Your task to perform on an android device: read, delete, or share a saved page in the chrome app Image 0: 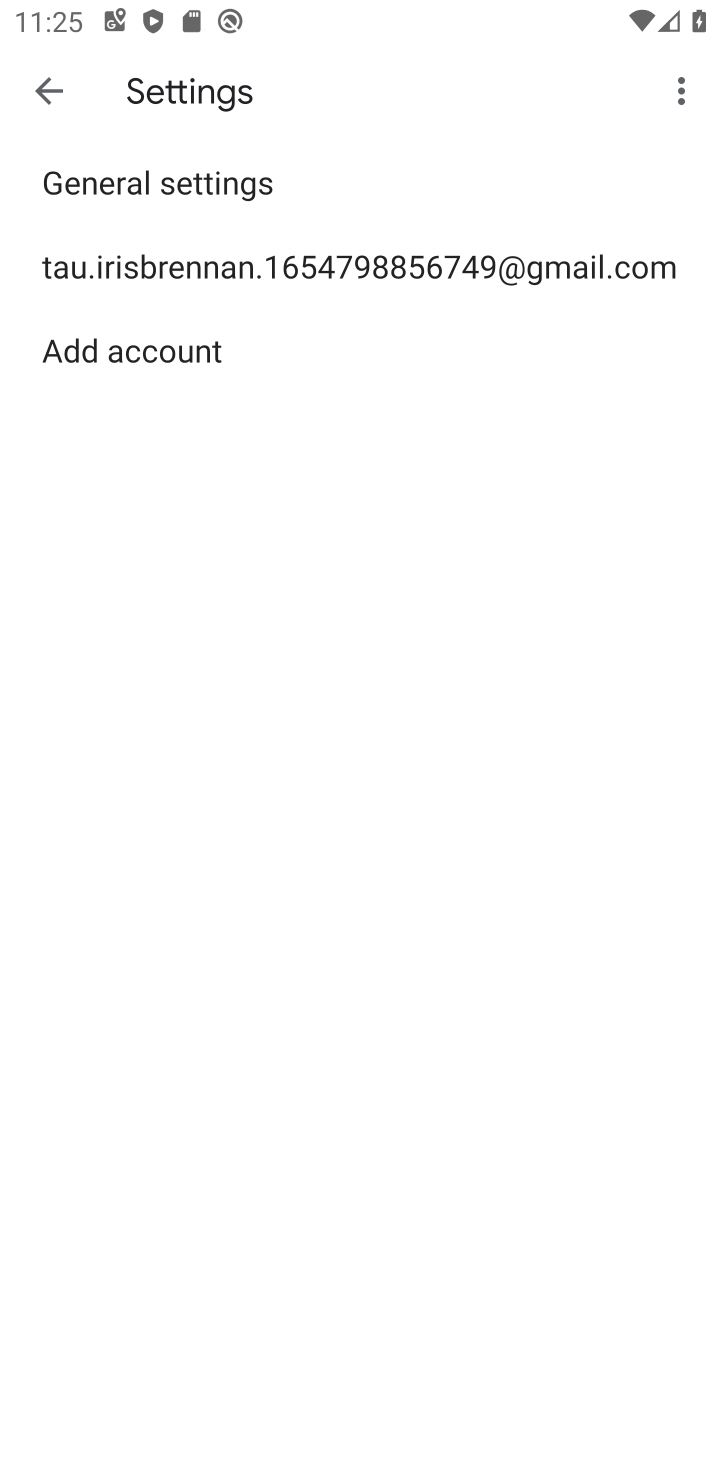
Step 0: press home button
Your task to perform on an android device: read, delete, or share a saved page in the chrome app Image 1: 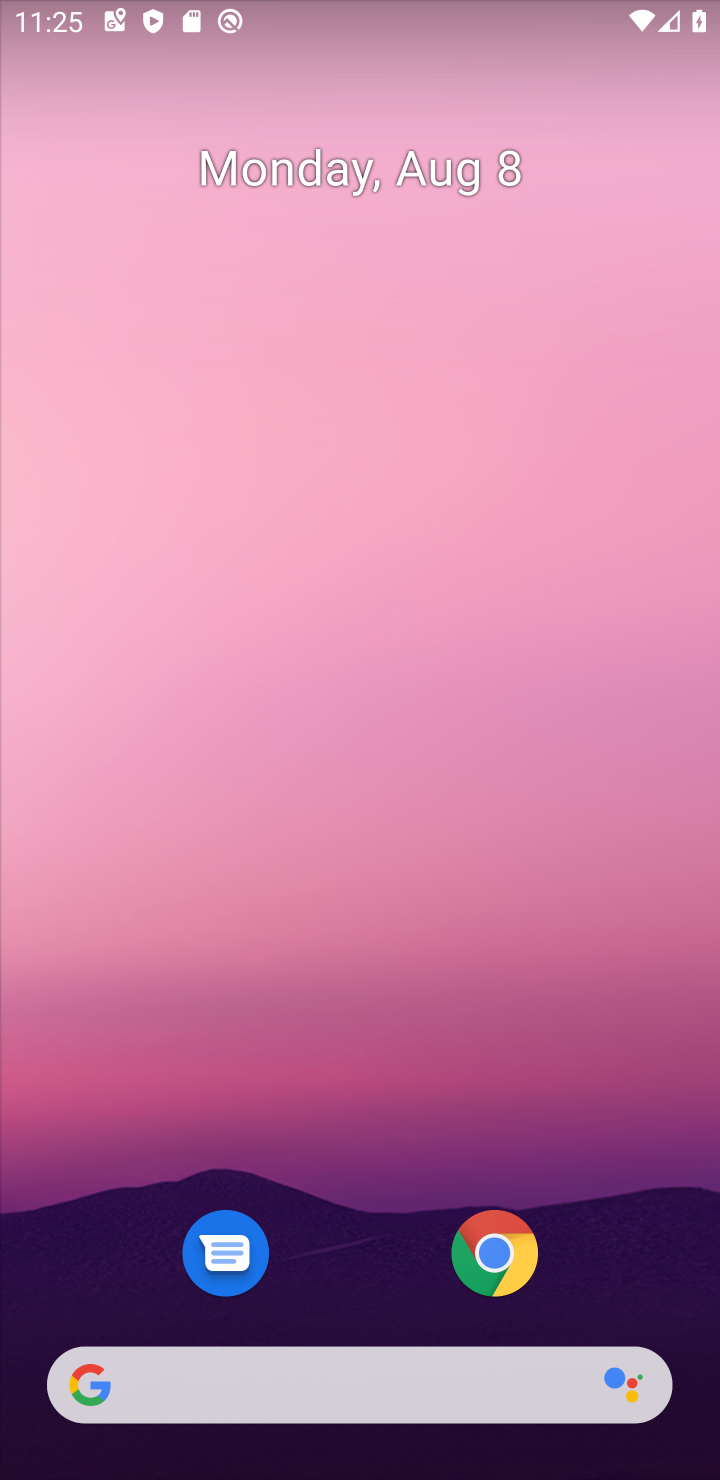
Step 1: drag from (397, 1263) to (664, 560)
Your task to perform on an android device: read, delete, or share a saved page in the chrome app Image 2: 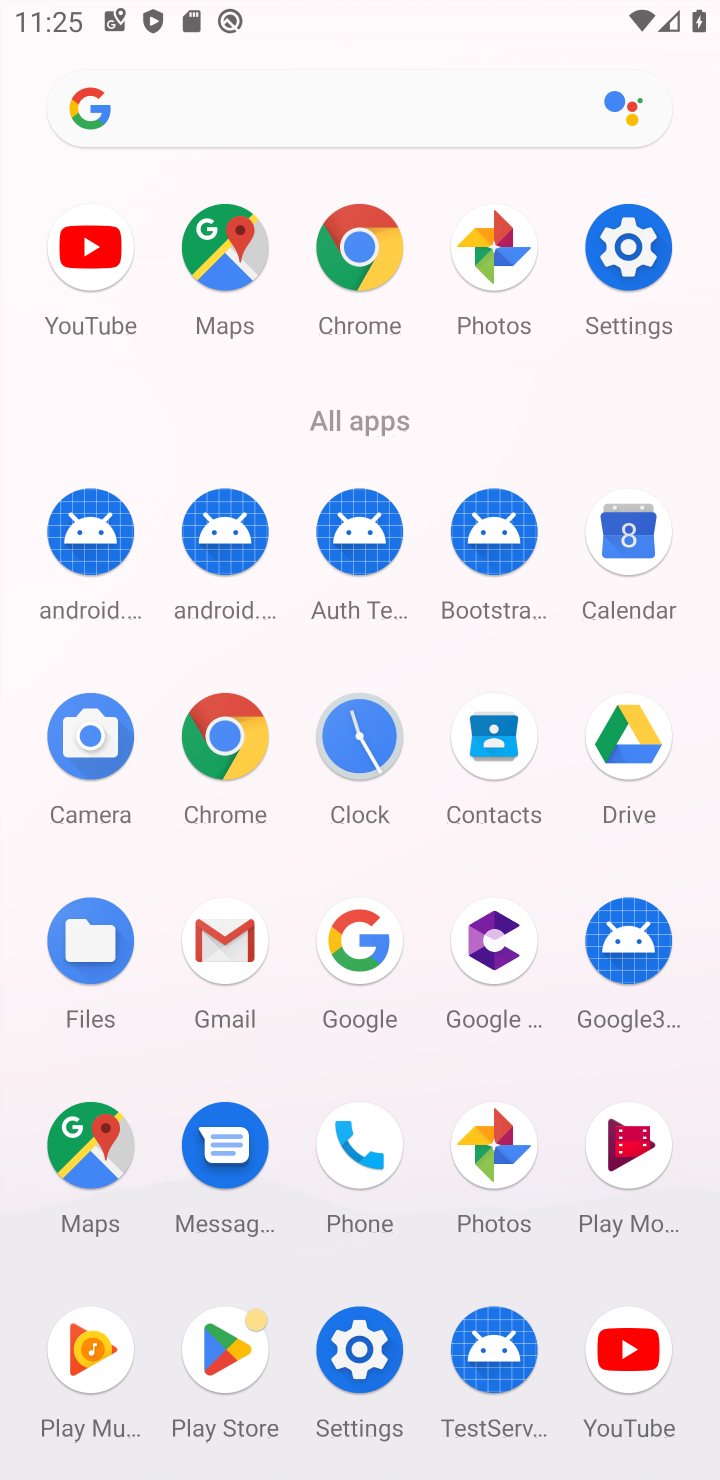
Step 2: click (250, 739)
Your task to perform on an android device: read, delete, or share a saved page in the chrome app Image 3: 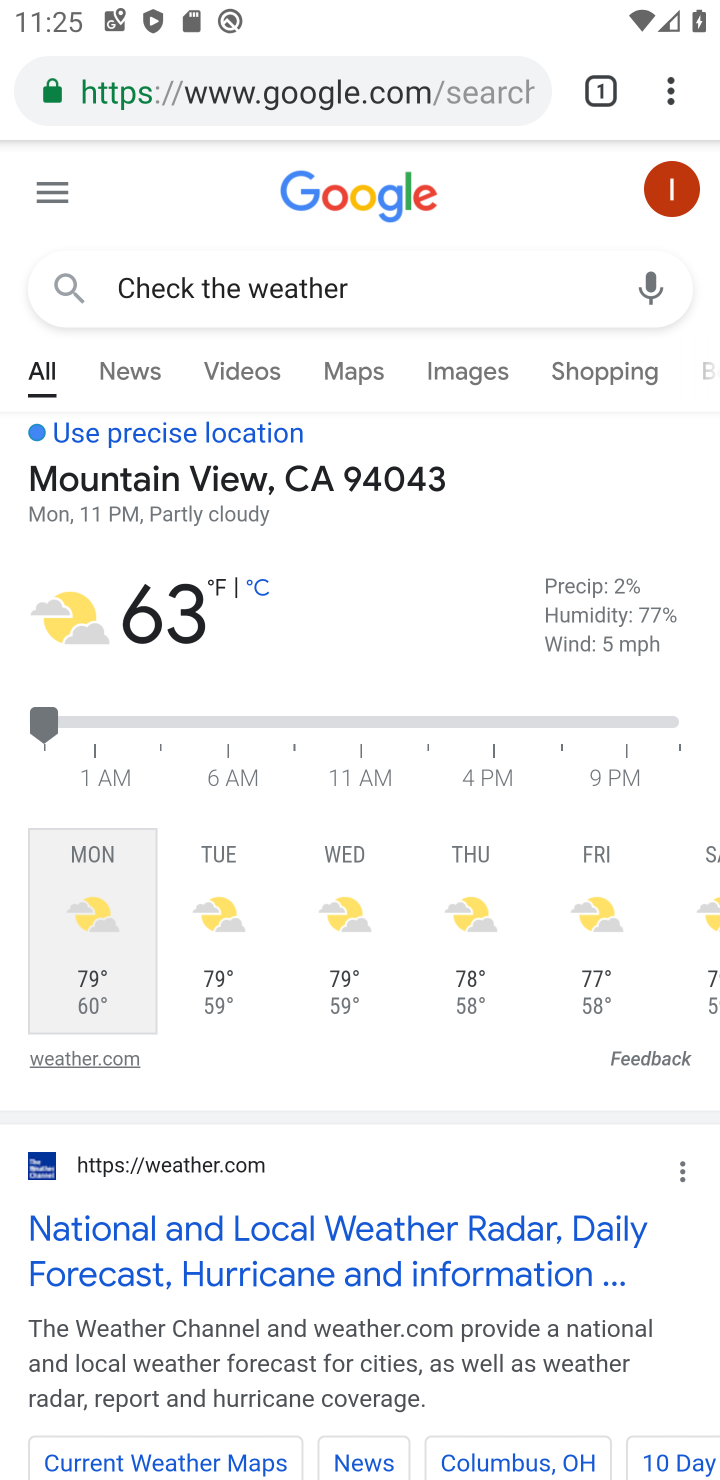
Step 3: click (675, 84)
Your task to perform on an android device: read, delete, or share a saved page in the chrome app Image 4: 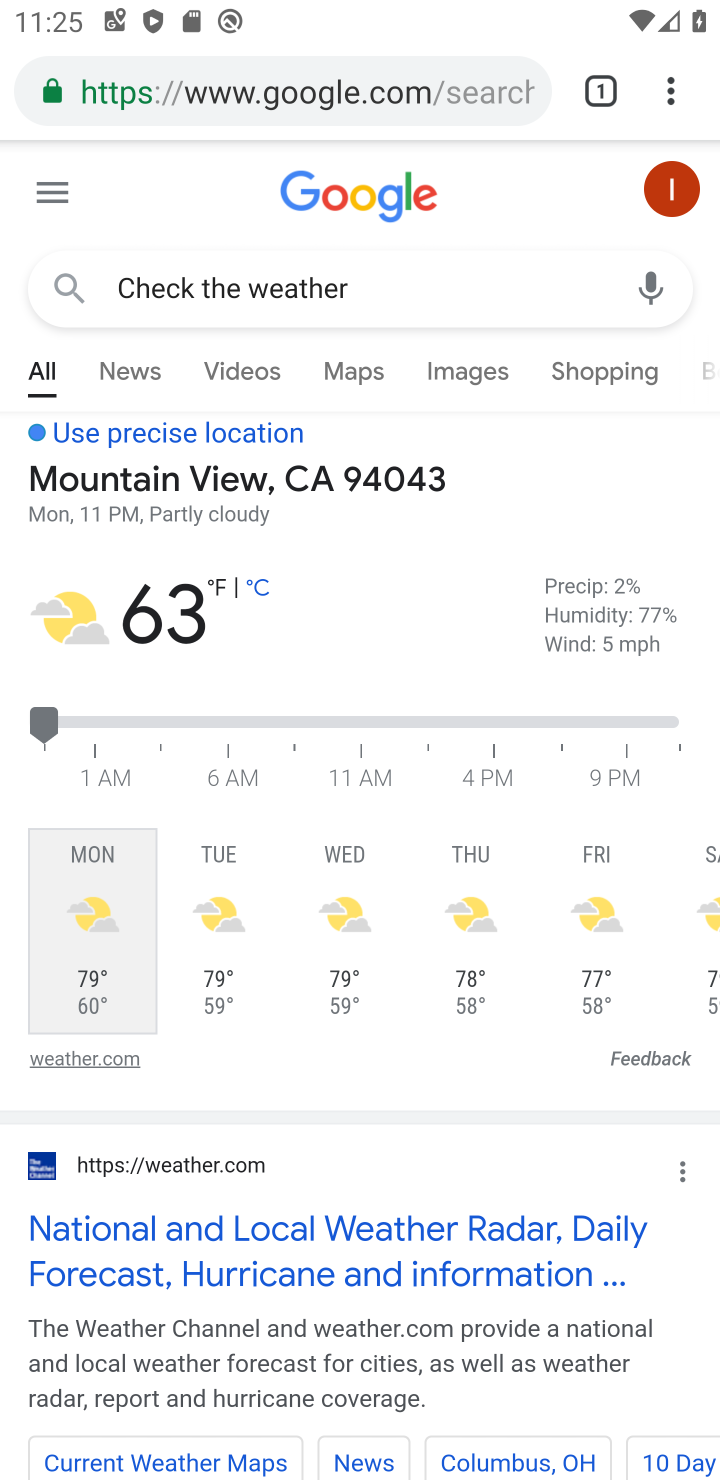
Step 4: click (675, 88)
Your task to perform on an android device: read, delete, or share a saved page in the chrome app Image 5: 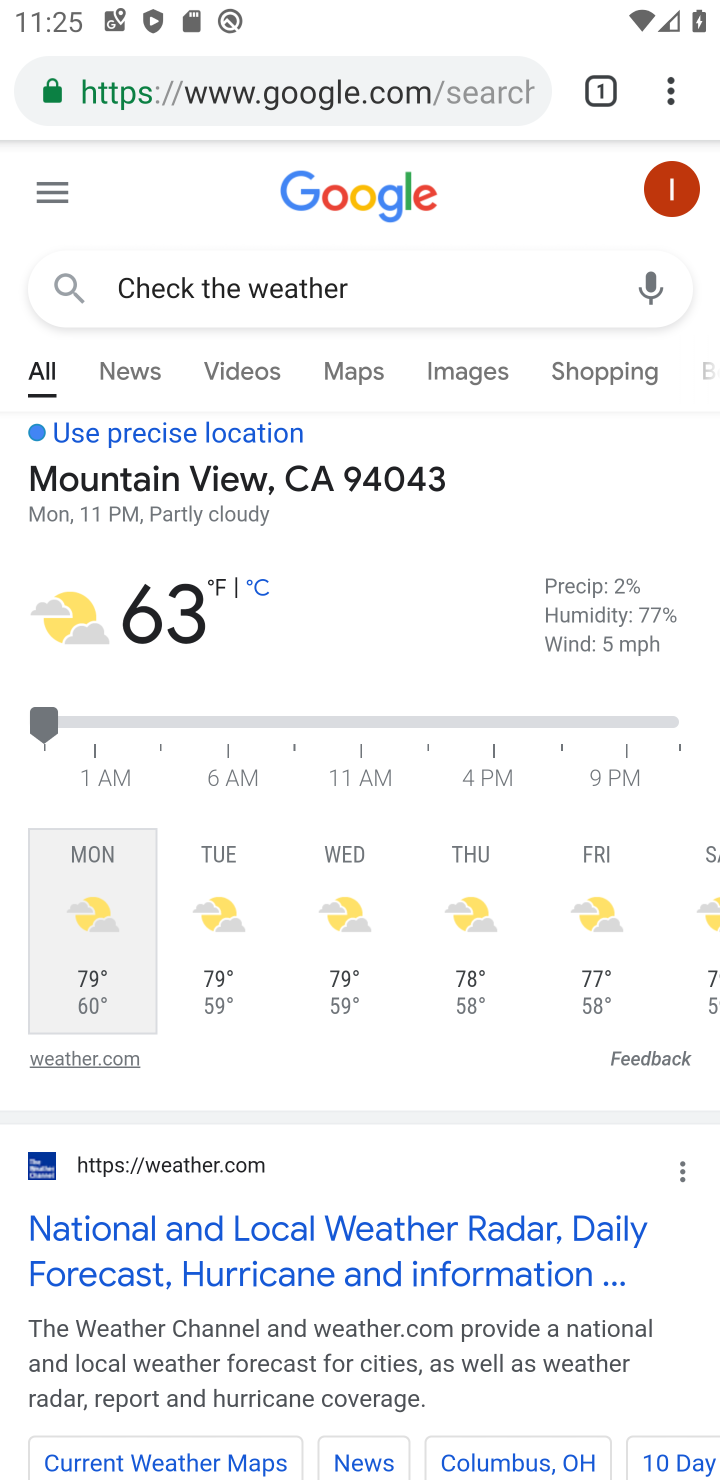
Step 5: click (675, 88)
Your task to perform on an android device: read, delete, or share a saved page in the chrome app Image 6: 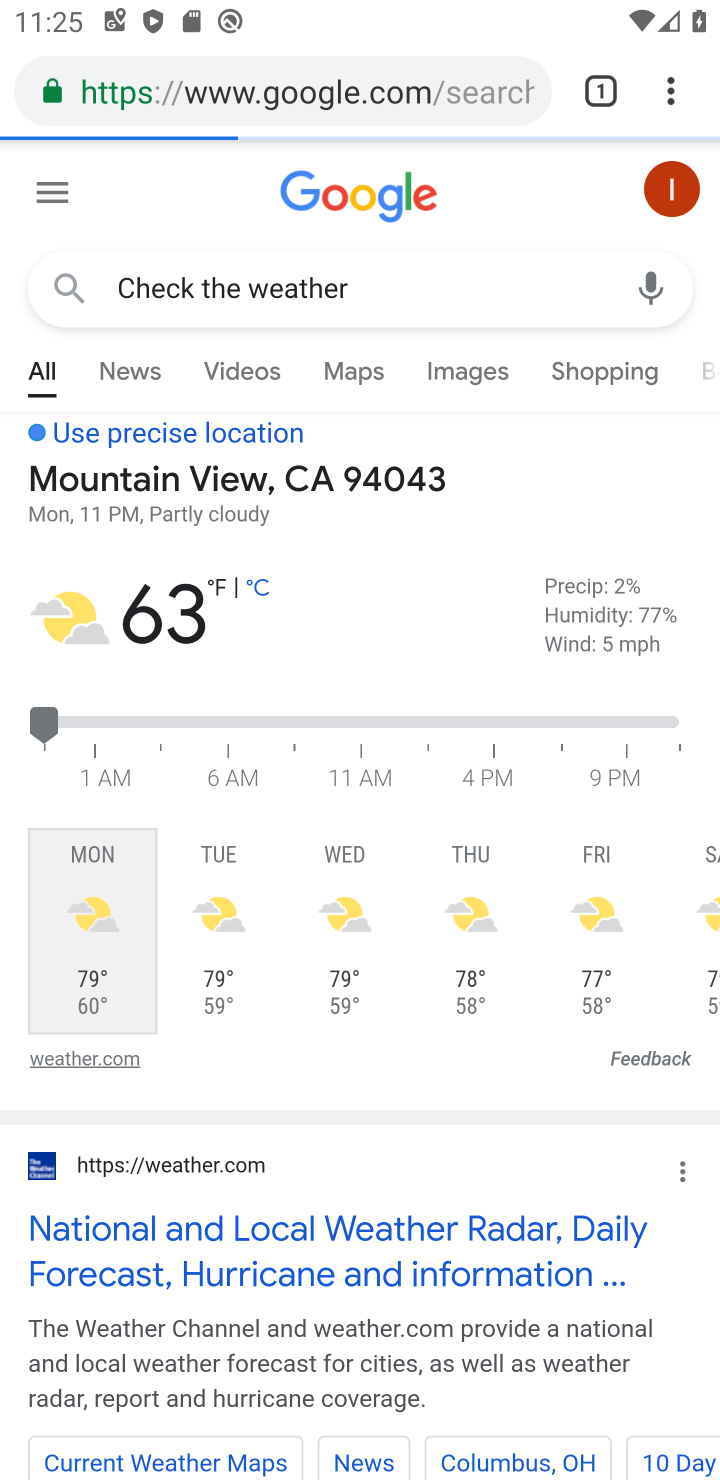
Step 6: click (675, 88)
Your task to perform on an android device: read, delete, or share a saved page in the chrome app Image 7: 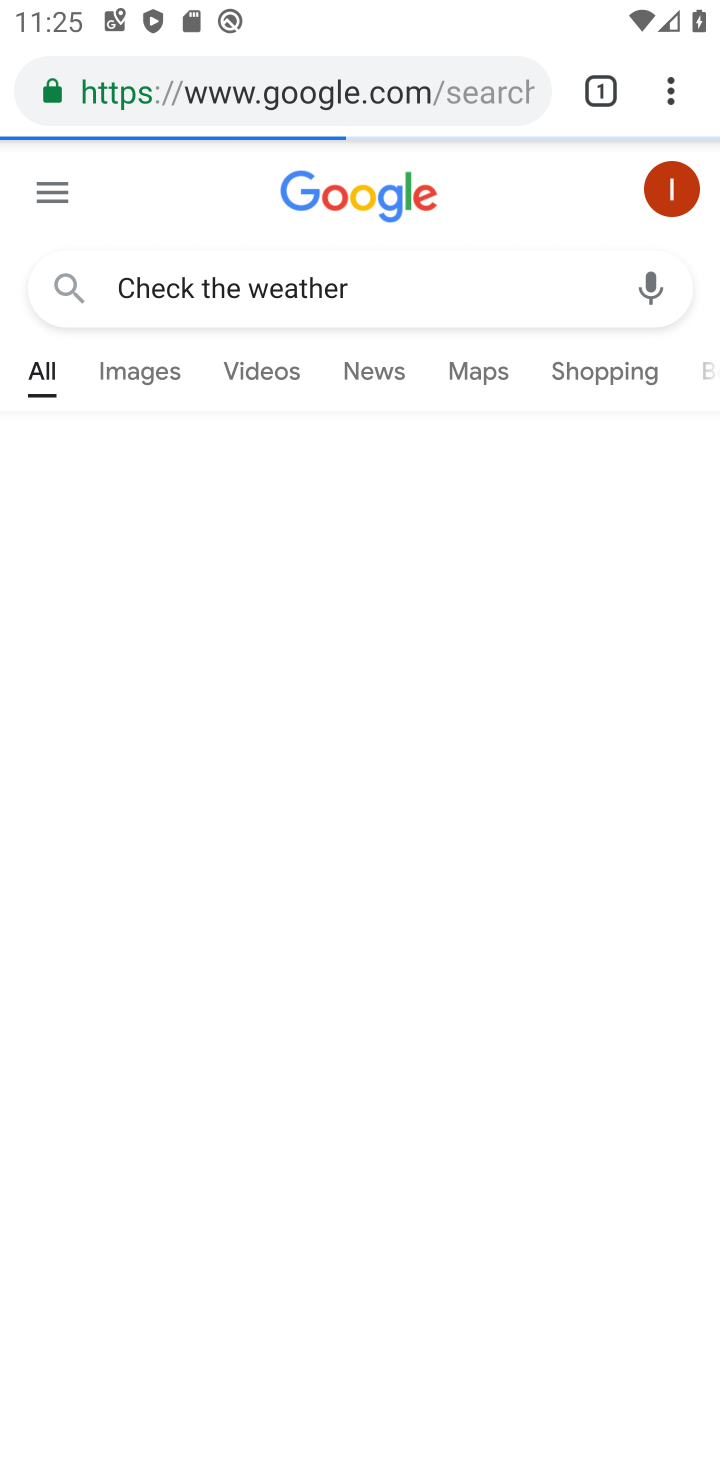
Step 7: click (663, 88)
Your task to perform on an android device: read, delete, or share a saved page in the chrome app Image 8: 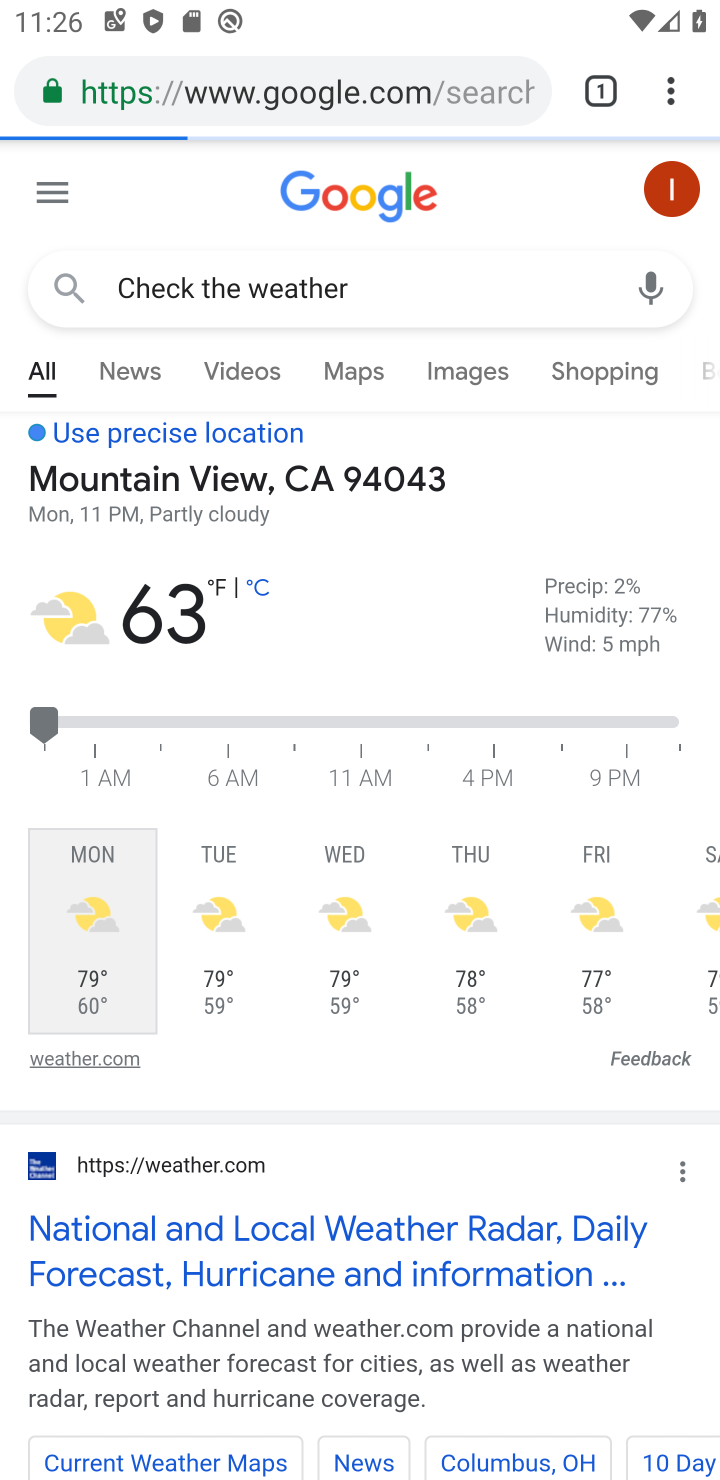
Step 8: click (663, 88)
Your task to perform on an android device: read, delete, or share a saved page in the chrome app Image 9: 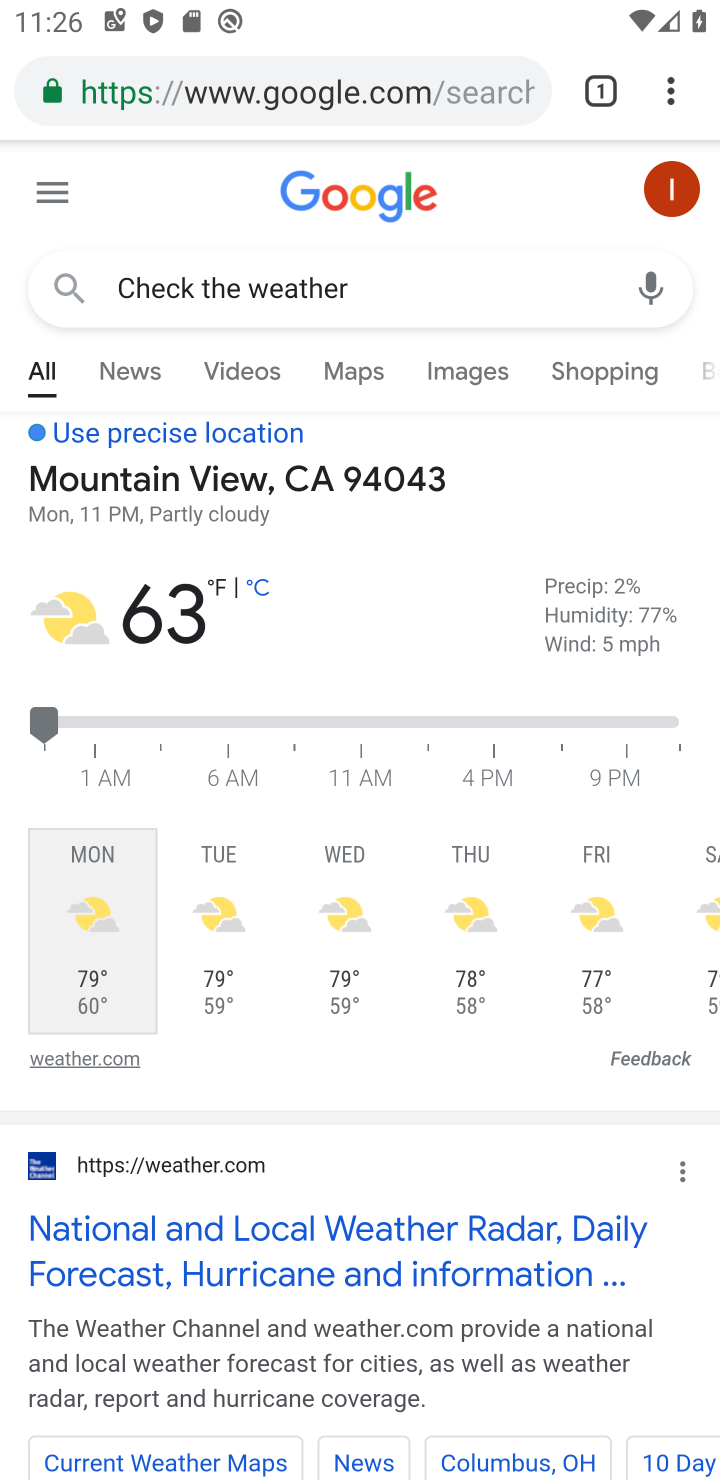
Step 9: click (642, 76)
Your task to perform on an android device: read, delete, or share a saved page in the chrome app Image 10: 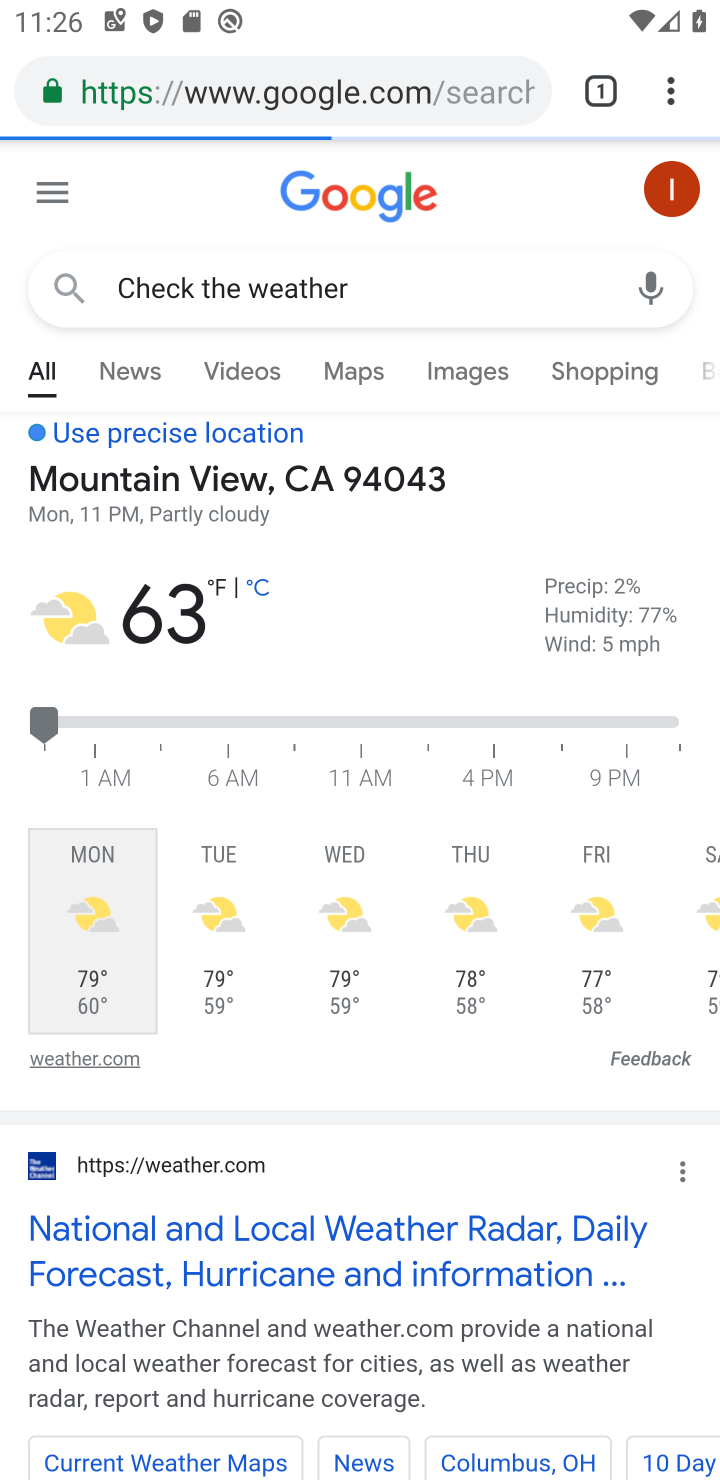
Step 10: click (666, 83)
Your task to perform on an android device: read, delete, or share a saved page in the chrome app Image 11: 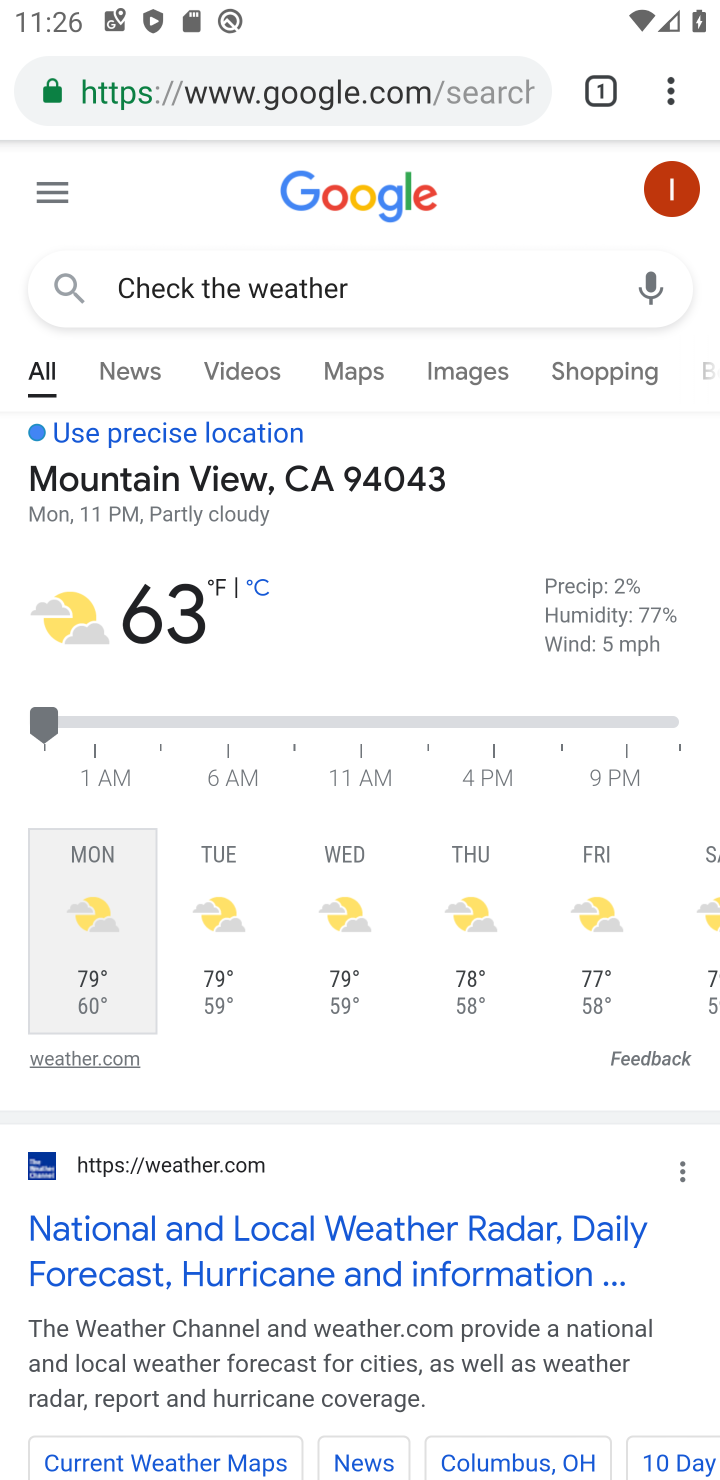
Step 11: click (666, 83)
Your task to perform on an android device: read, delete, or share a saved page in the chrome app Image 12: 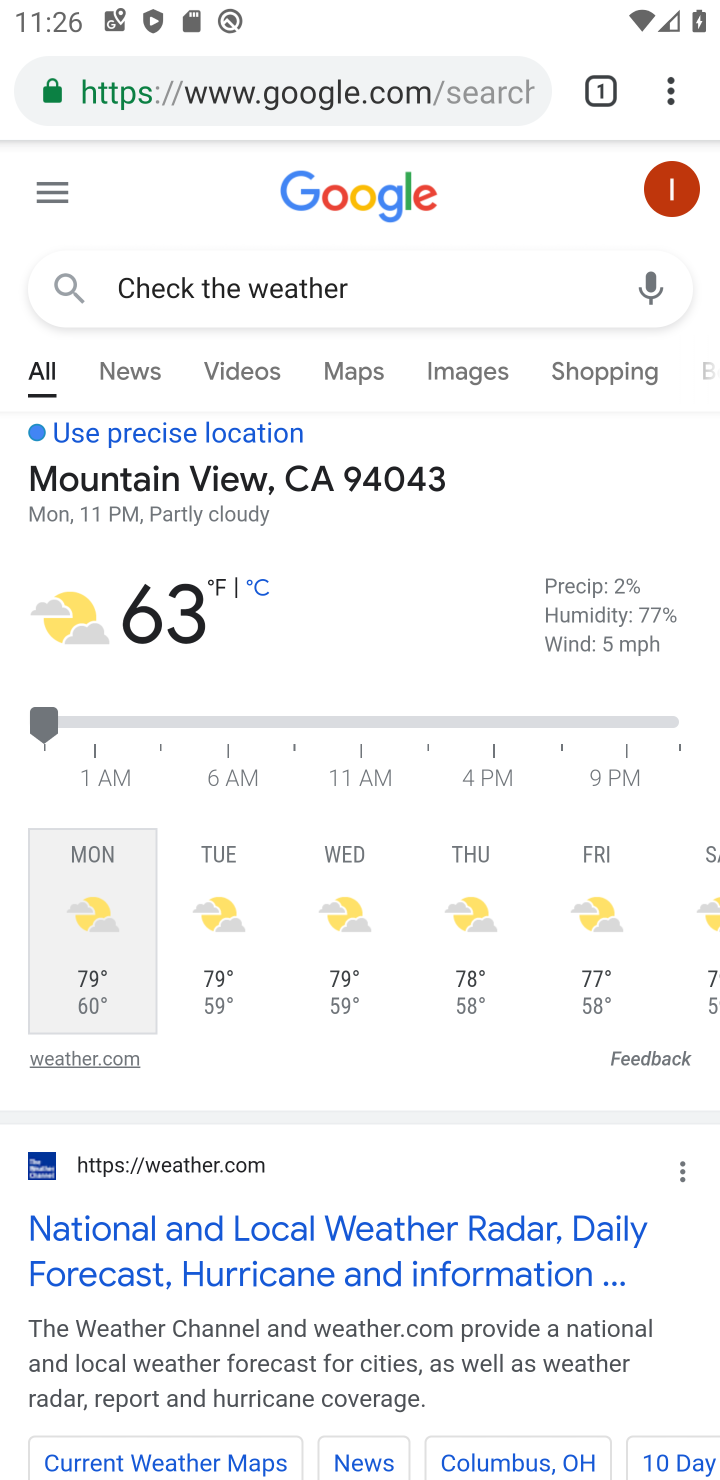
Step 12: click (666, 83)
Your task to perform on an android device: read, delete, or share a saved page in the chrome app Image 13: 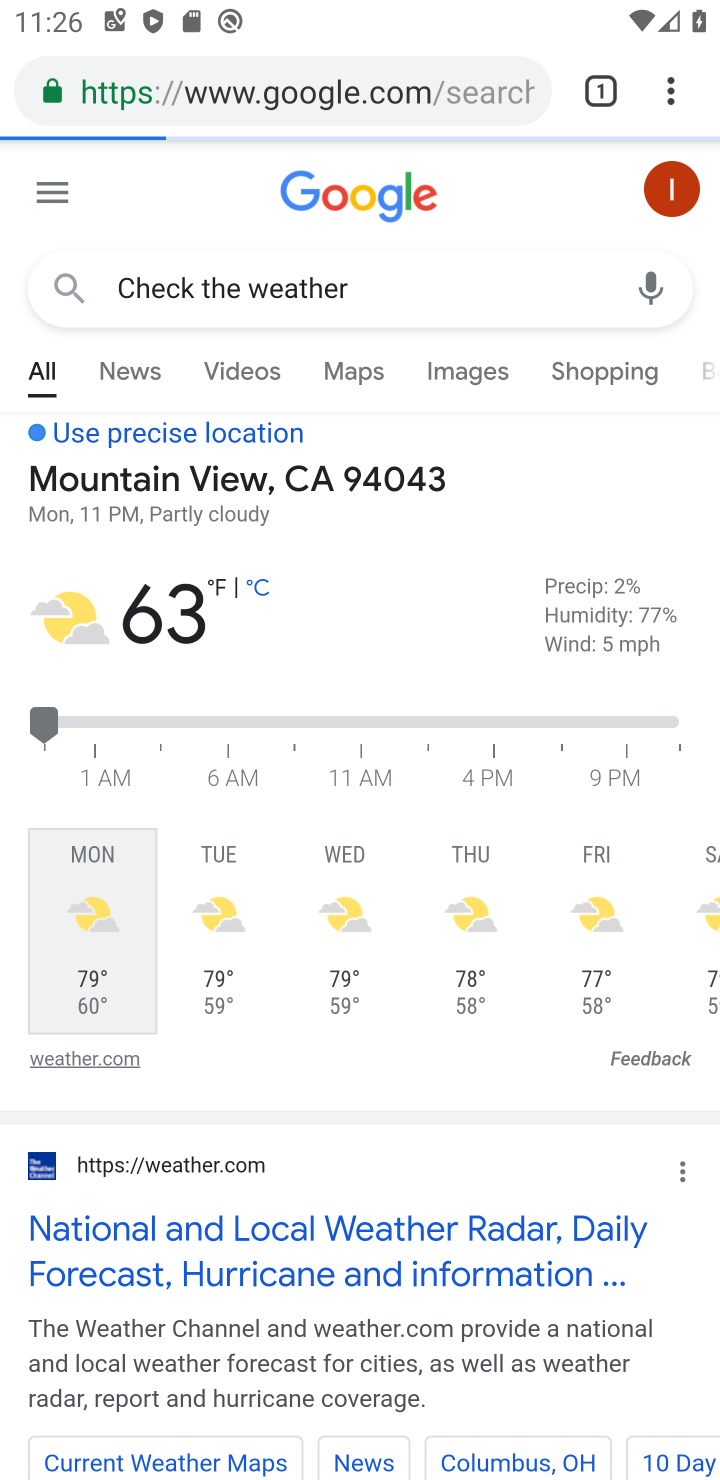
Step 13: click (666, 83)
Your task to perform on an android device: read, delete, or share a saved page in the chrome app Image 14: 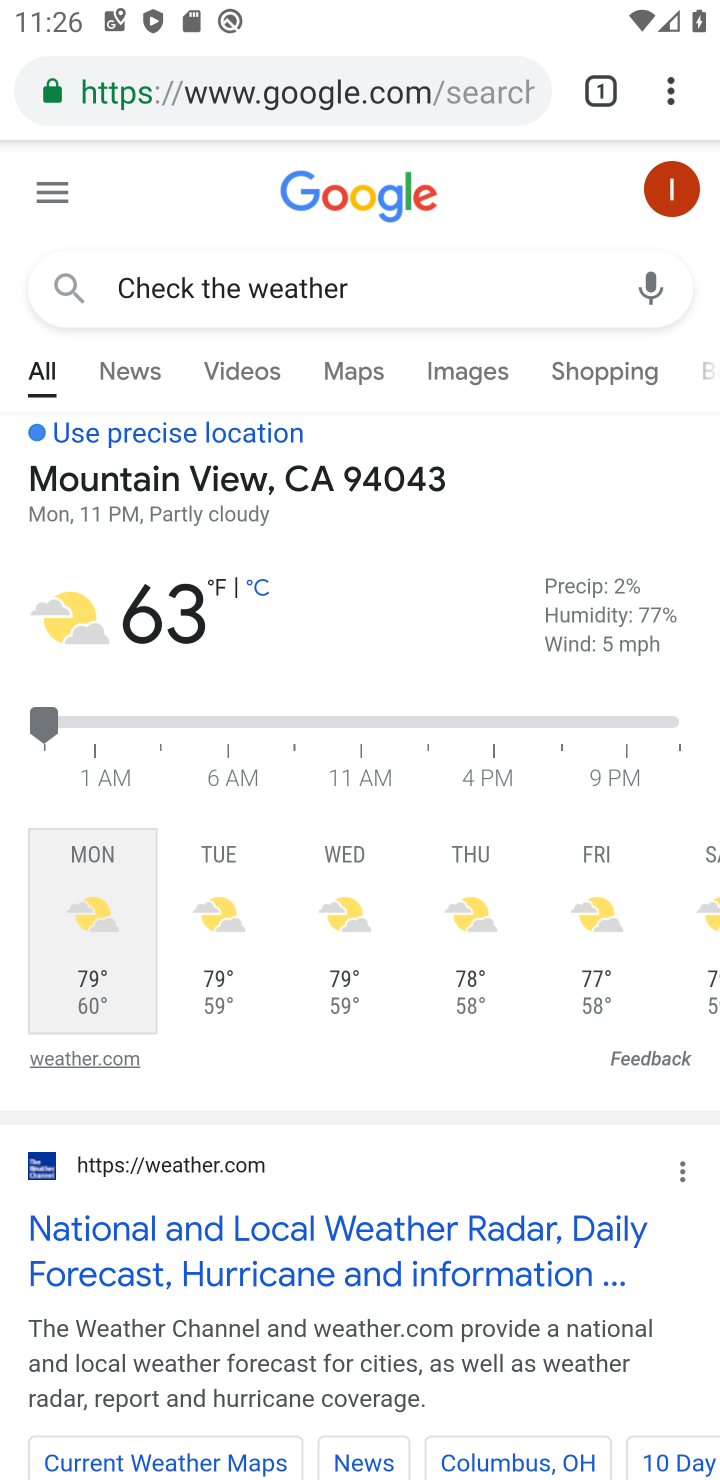
Step 14: click (666, 83)
Your task to perform on an android device: read, delete, or share a saved page in the chrome app Image 15: 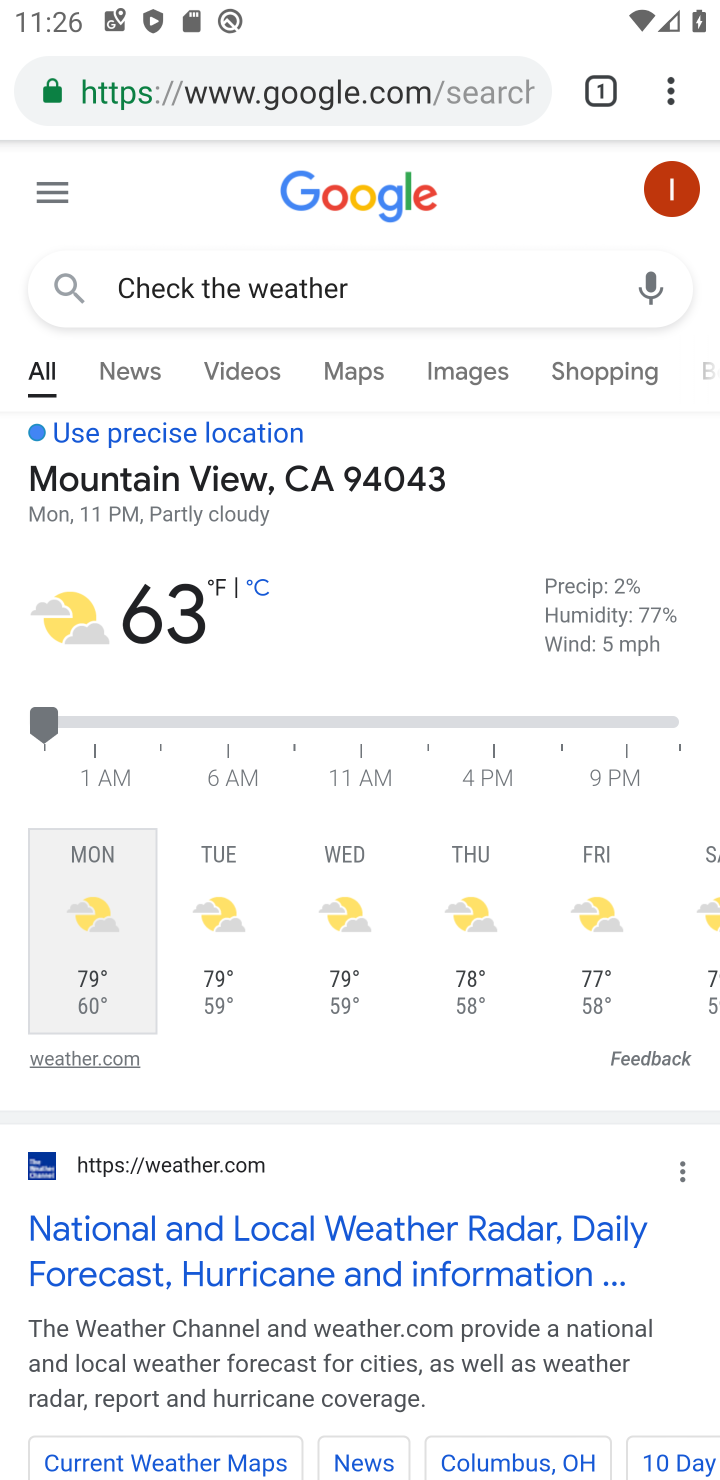
Step 15: click (666, 83)
Your task to perform on an android device: read, delete, or share a saved page in the chrome app Image 16: 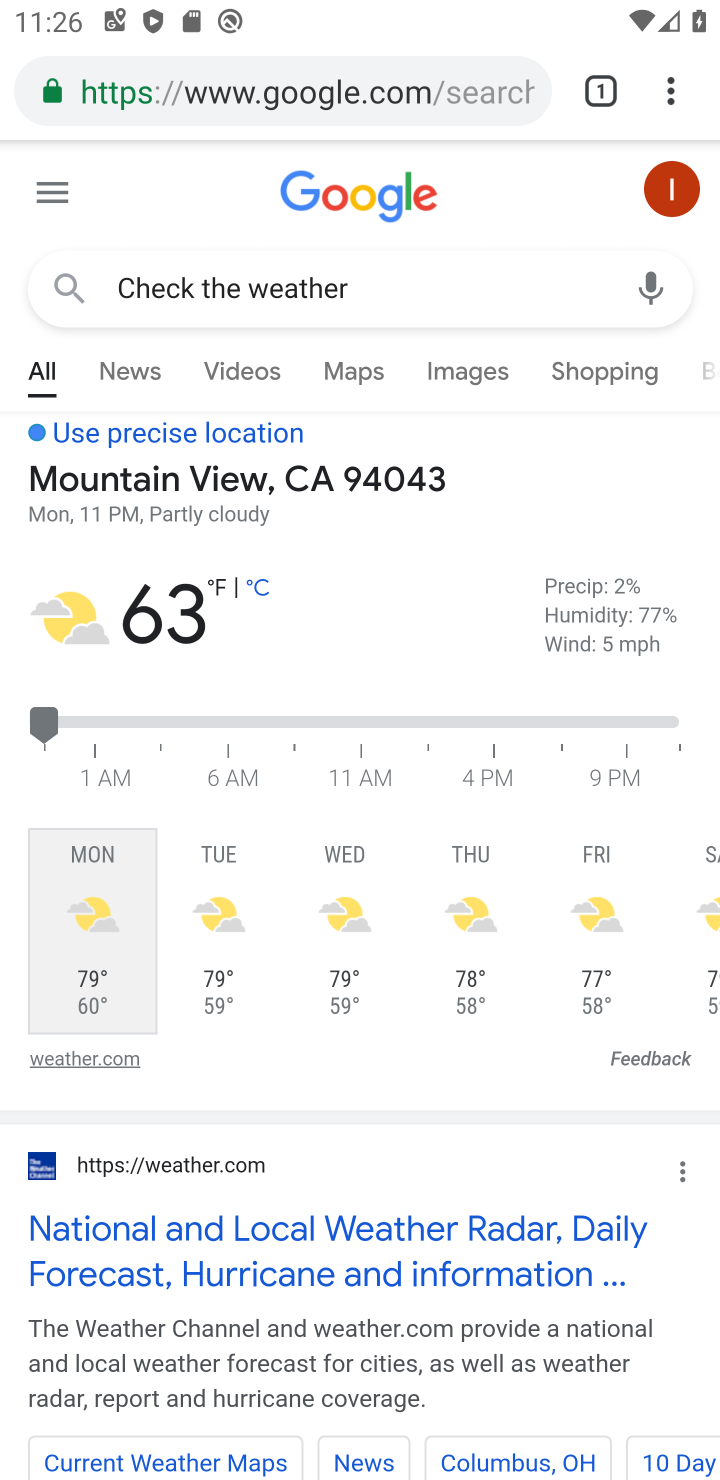
Step 16: task complete